Your task to perform on an android device: turn on airplane mode Image 0: 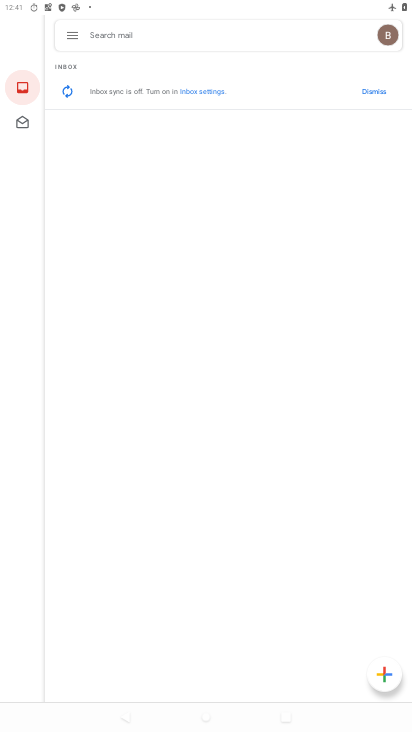
Step 0: press home button
Your task to perform on an android device: turn on airplane mode Image 1: 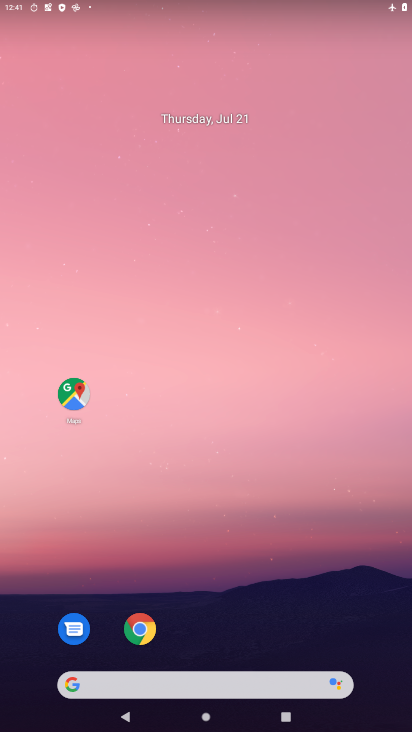
Step 1: drag from (314, 682) to (335, 74)
Your task to perform on an android device: turn on airplane mode Image 2: 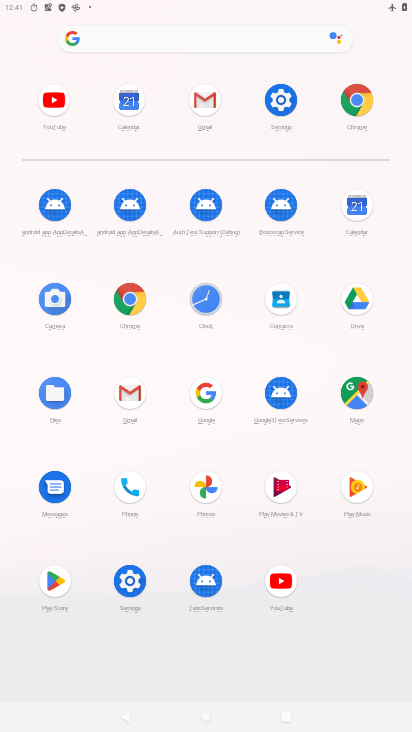
Step 2: click (279, 101)
Your task to perform on an android device: turn on airplane mode Image 3: 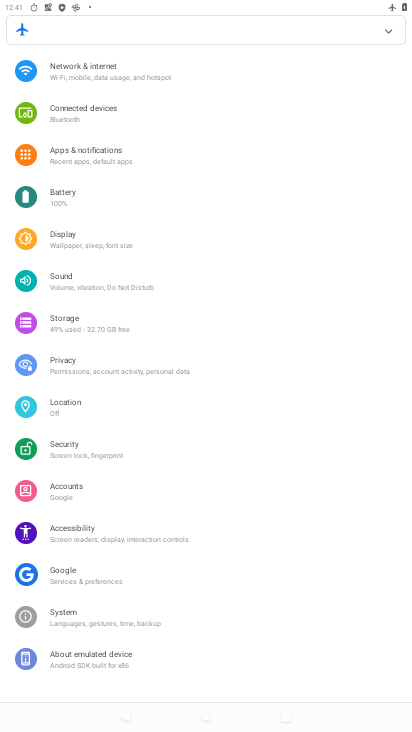
Step 3: click (110, 160)
Your task to perform on an android device: turn on airplane mode Image 4: 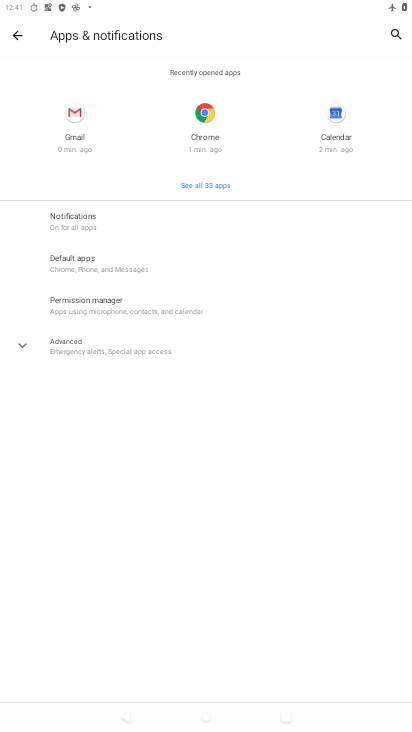
Step 4: press back button
Your task to perform on an android device: turn on airplane mode Image 5: 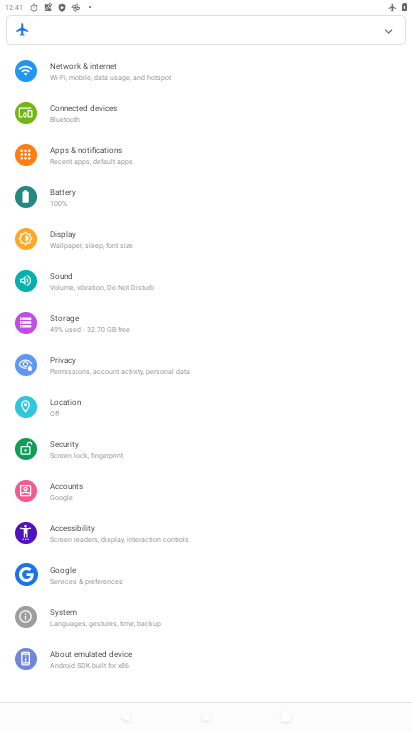
Step 5: click (96, 73)
Your task to perform on an android device: turn on airplane mode Image 6: 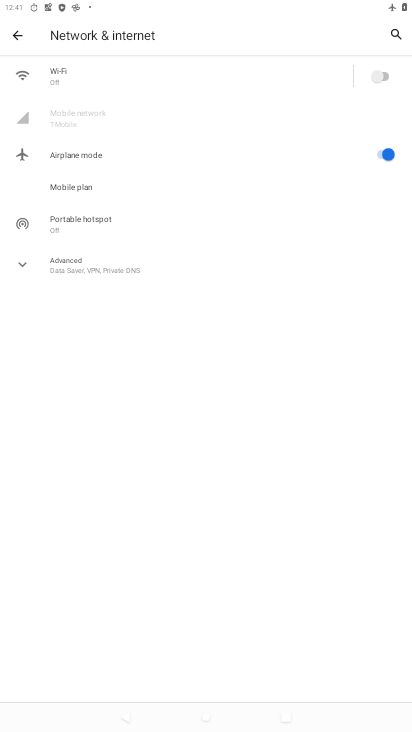
Step 6: task complete